Your task to perform on an android device: turn on priority inbox in the gmail app Image 0: 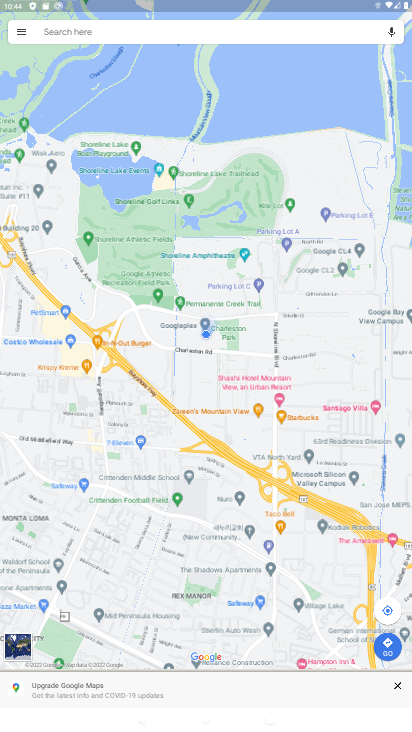
Step 0: press home button
Your task to perform on an android device: turn on priority inbox in the gmail app Image 1: 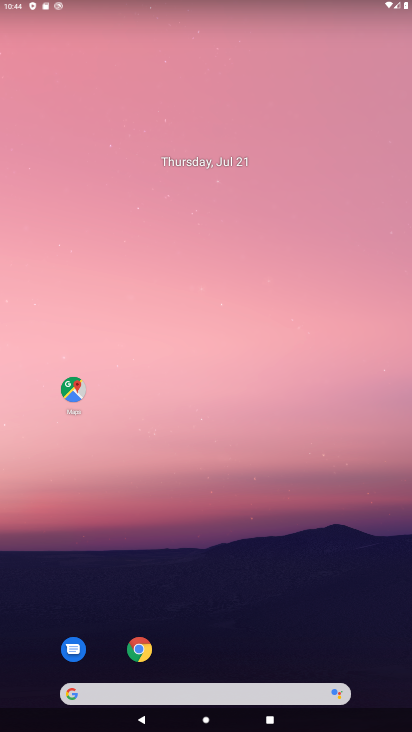
Step 1: drag from (380, 691) to (280, 137)
Your task to perform on an android device: turn on priority inbox in the gmail app Image 2: 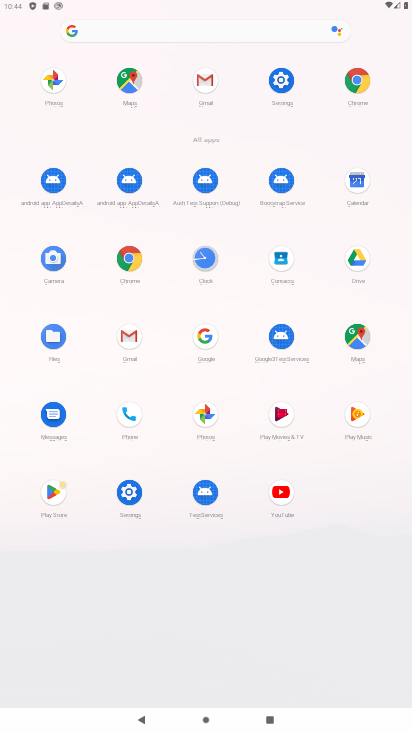
Step 2: click (200, 78)
Your task to perform on an android device: turn on priority inbox in the gmail app Image 3: 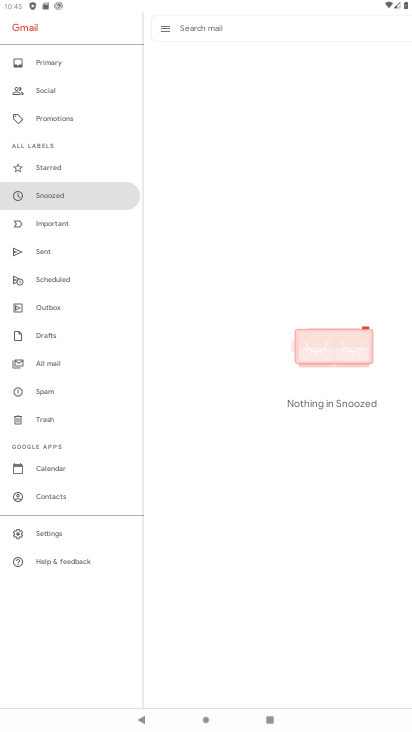
Step 3: click (39, 532)
Your task to perform on an android device: turn on priority inbox in the gmail app Image 4: 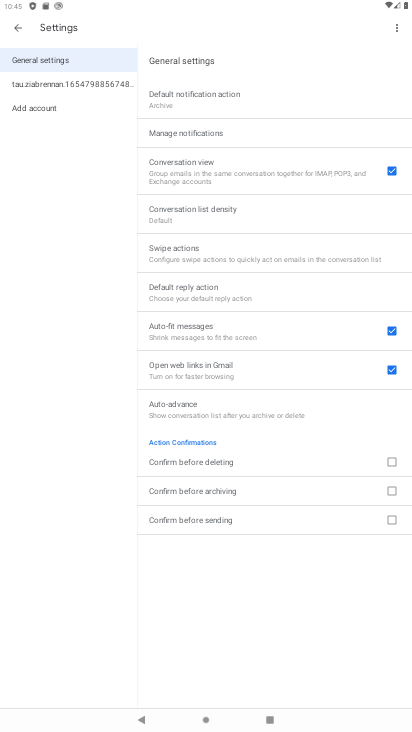
Step 4: click (54, 84)
Your task to perform on an android device: turn on priority inbox in the gmail app Image 5: 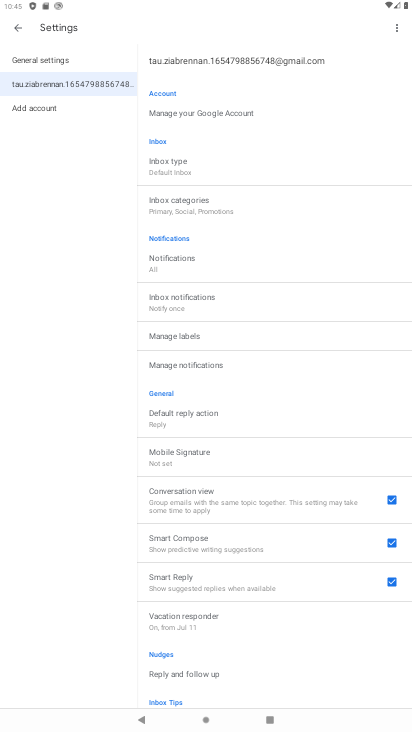
Step 5: task complete